Your task to perform on an android device: Search for flights from San Francisco to Tokyo Image 0: 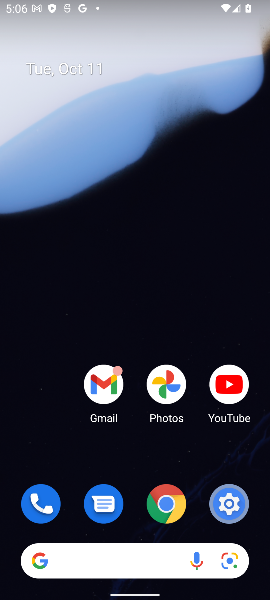
Step 0: click (117, 552)
Your task to perform on an android device: Search for flights from San Francisco to Tokyo Image 1: 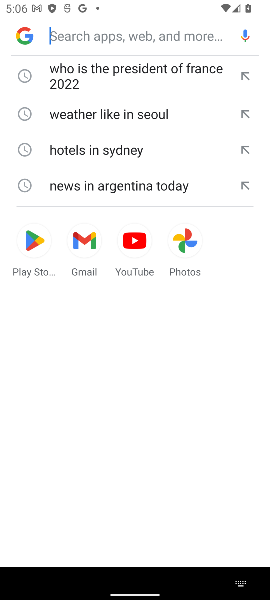
Step 1: click (80, 39)
Your task to perform on an android device: Search for flights from San Francisco to Tokyo Image 2: 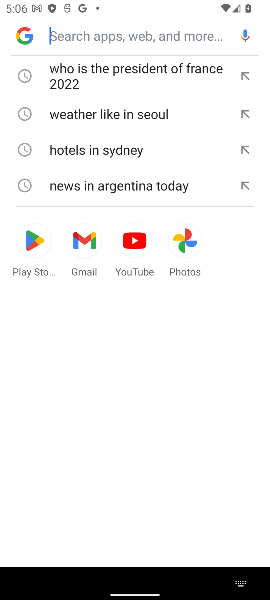
Step 2: type "Who is the president of France?"
Your task to perform on an android device: Search for flights from San Francisco to Tokyo Image 3: 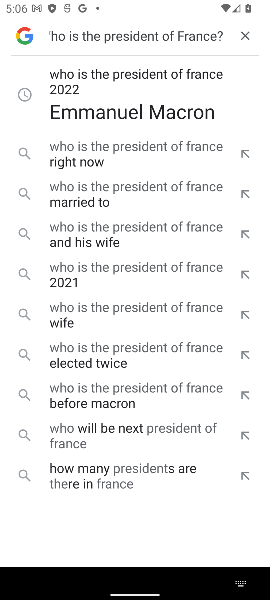
Step 3: click (241, 32)
Your task to perform on an android device: Search for flights from San Francisco to Tokyo Image 4: 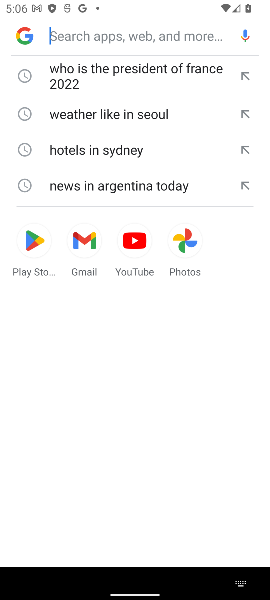
Step 4: type "flights from San Francisco to Tokyo"
Your task to perform on an android device: Search for flights from San Francisco to Tokyo Image 5: 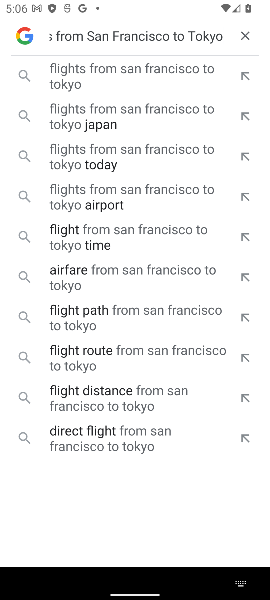
Step 5: click (111, 73)
Your task to perform on an android device: Search for flights from San Francisco to Tokyo Image 6: 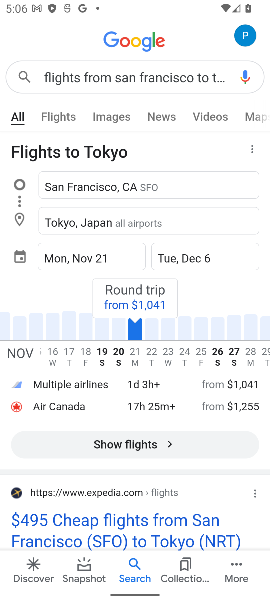
Step 6: task complete